Your task to perform on an android device: show emergency info Image 0: 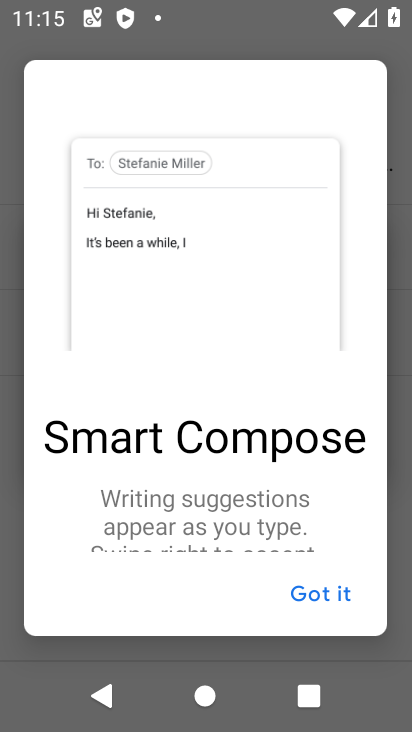
Step 0: press home button
Your task to perform on an android device: show emergency info Image 1: 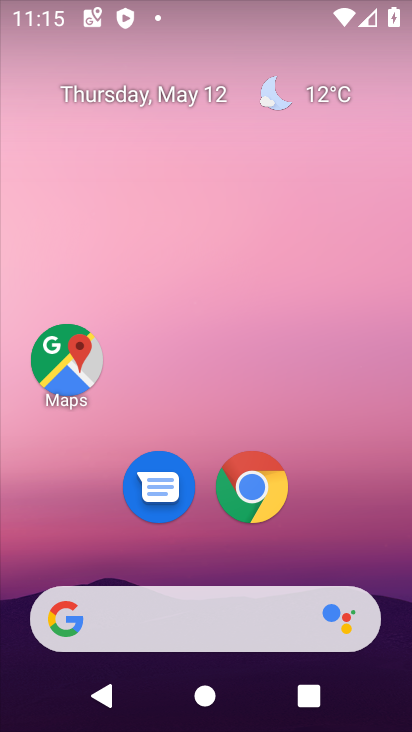
Step 1: drag from (401, 580) to (352, 4)
Your task to perform on an android device: show emergency info Image 2: 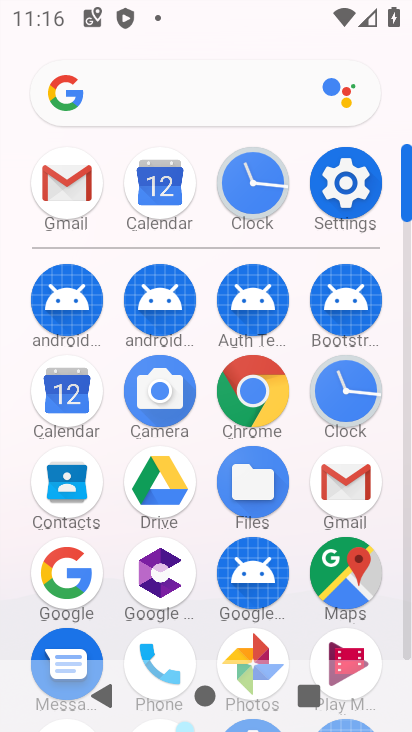
Step 2: click (355, 189)
Your task to perform on an android device: show emergency info Image 3: 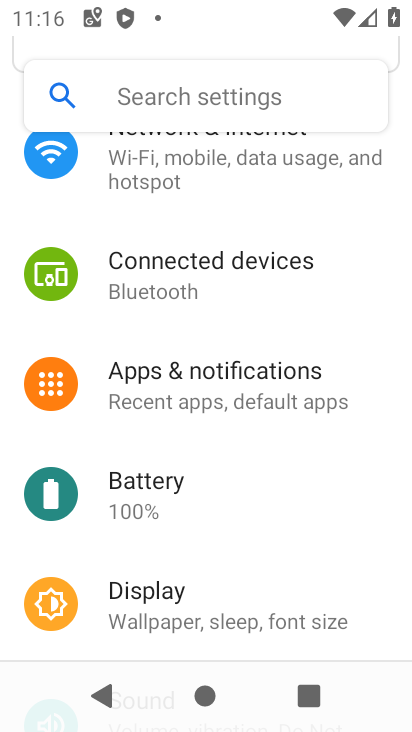
Step 3: drag from (367, 572) to (348, 9)
Your task to perform on an android device: show emergency info Image 4: 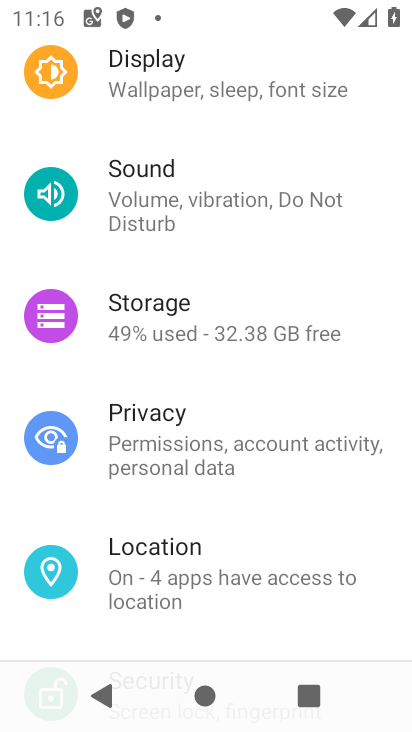
Step 4: drag from (356, 515) to (316, 52)
Your task to perform on an android device: show emergency info Image 5: 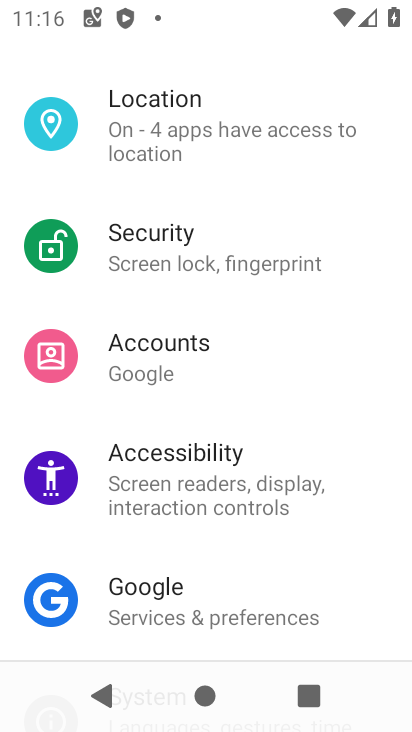
Step 5: drag from (334, 560) to (301, 58)
Your task to perform on an android device: show emergency info Image 6: 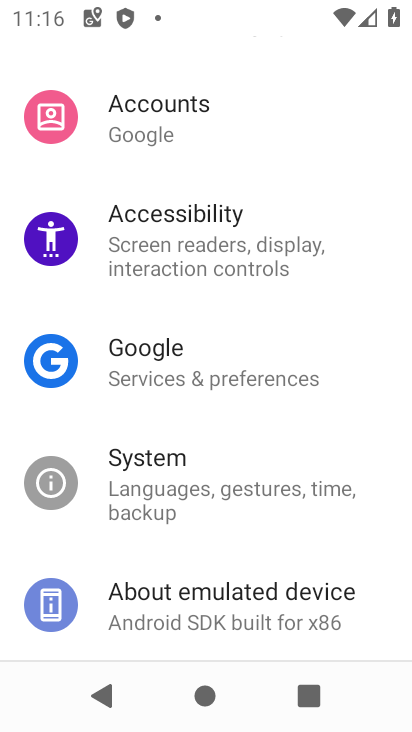
Step 6: click (231, 606)
Your task to perform on an android device: show emergency info Image 7: 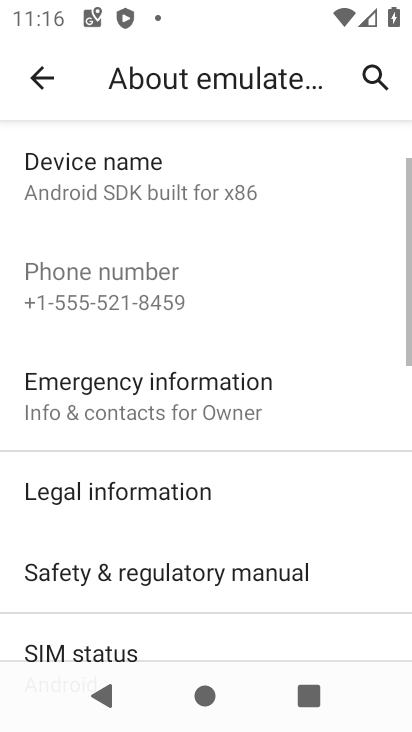
Step 7: click (87, 411)
Your task to perform on an android device: show emergency info Image 8: 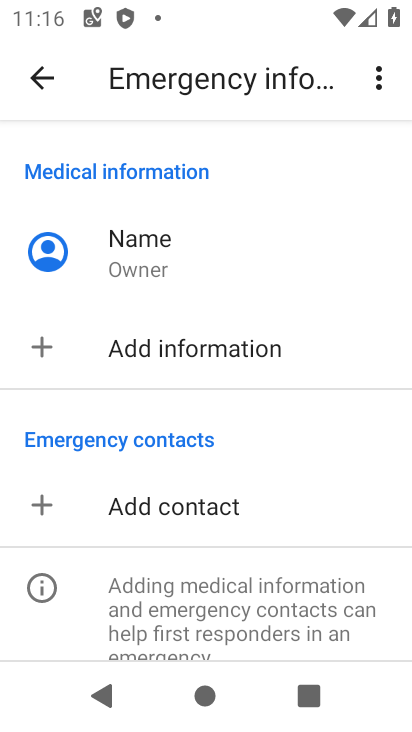
Step 8: task complete